Your task to perform on an android device: turn off sleep mode Image 0: 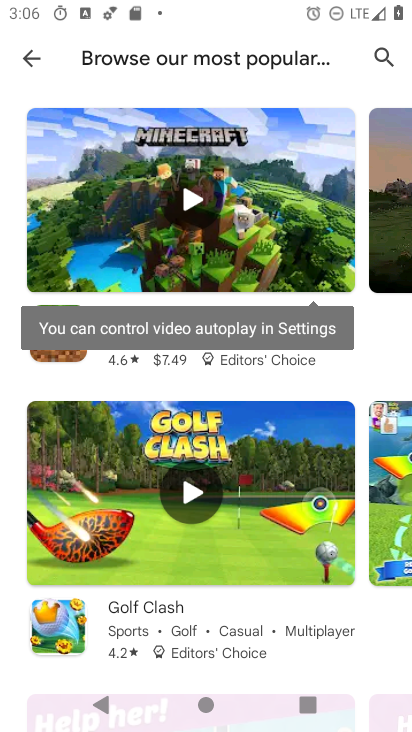
Step 0: press home button
Your task to perform on an android device: turn off sleep mode Image 1: 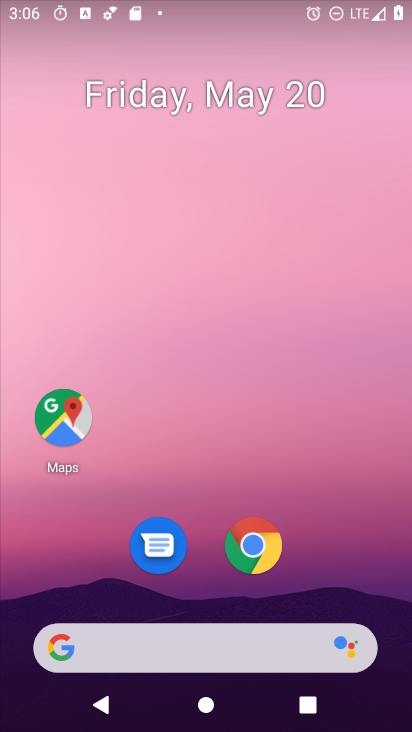
Step 1: drag from (281, 653) to (411, 404)
Your task to perform on an android device: turn off sleep mode Image 2: 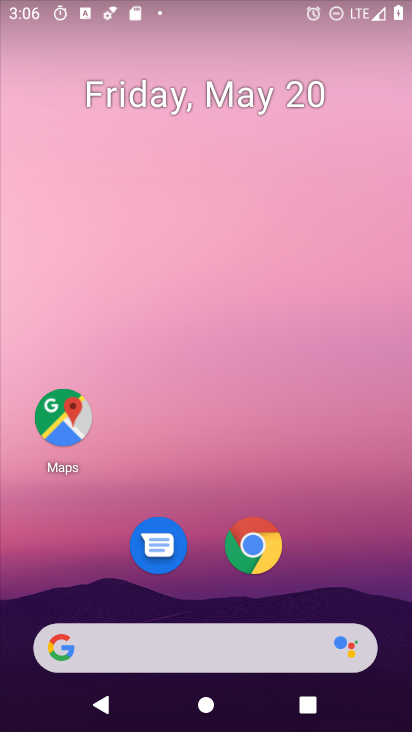
Step 2: drag from (285, 564) to (151, 6)
Your task to perform on an android device: turn off sleep mode Image 3: 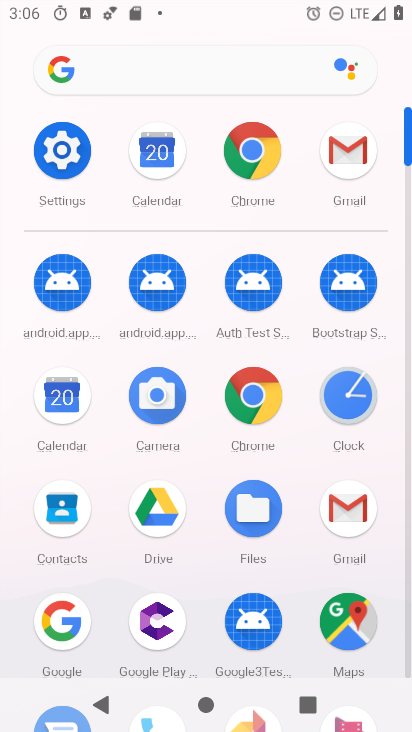
Step 3: click (69, 166)
Your task to perform on an android device: turn off sleep mode Image 4: 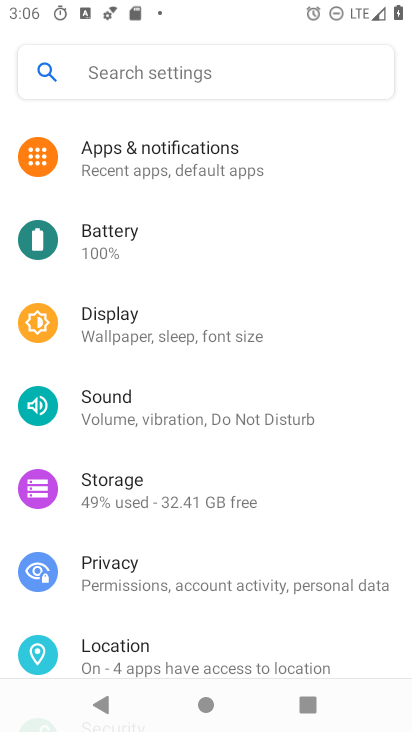
Step 4: click (211, 329)
Your task to perform on an android device: turn off sleep mode Image 5: 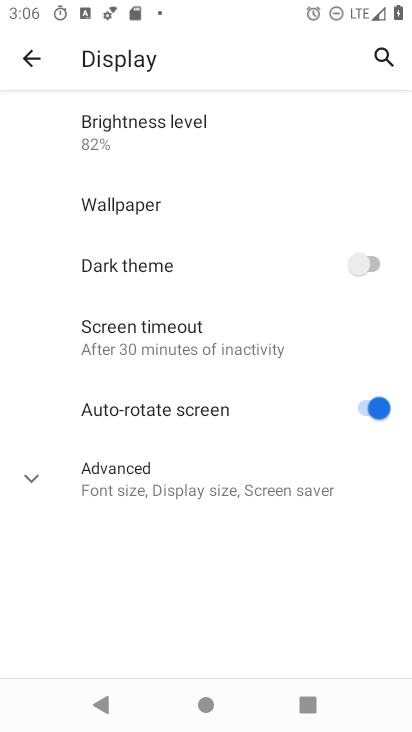
Step 5: task complete